Your task to perform on an android device: see creations saved in the google photos Image 0: 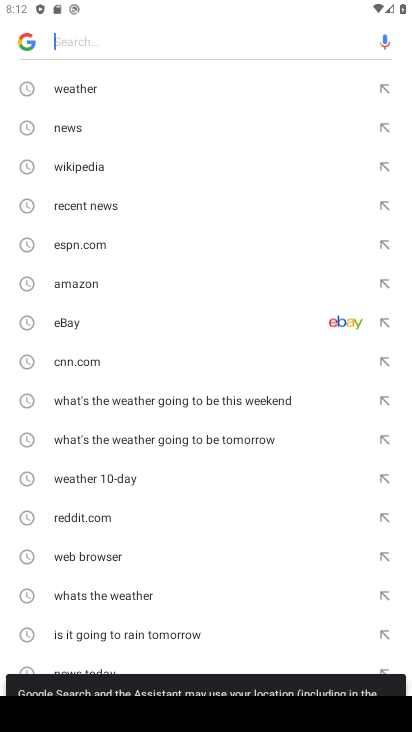
Step 0: drag from (252, 620) to (223, 8)
Your task to perform on an android device: see creations saved in the google photos Image 1: 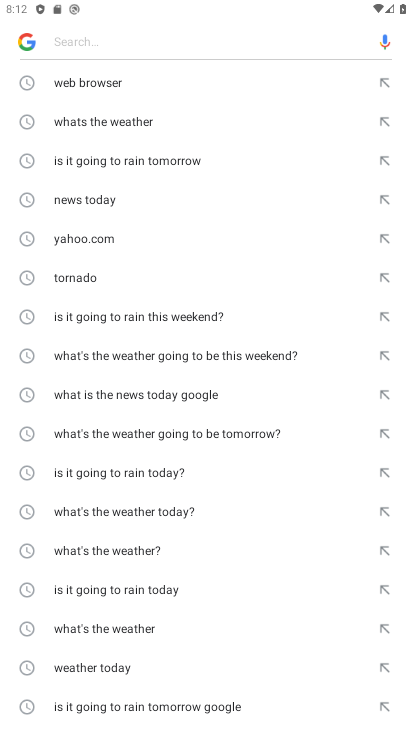
Step 1: drag from (139, 713) to (110, 52)
Your task to perform on an android device: see creations saved in the google photos Image 2: 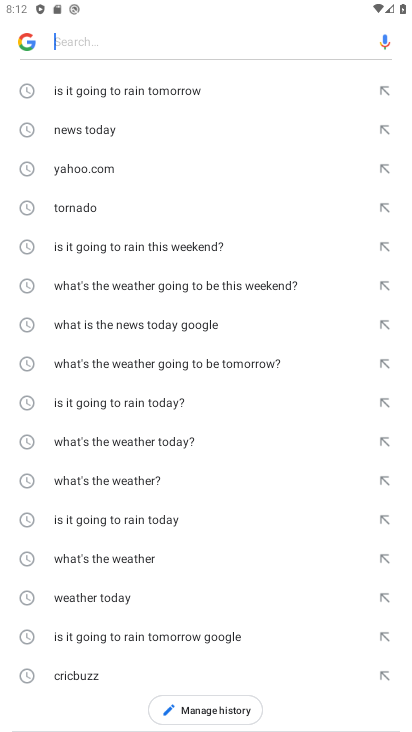
Step 2: drag from (263, 700) to (350, 231)
Your task to perform on an android device: see creations saved in the google photos Image 3: 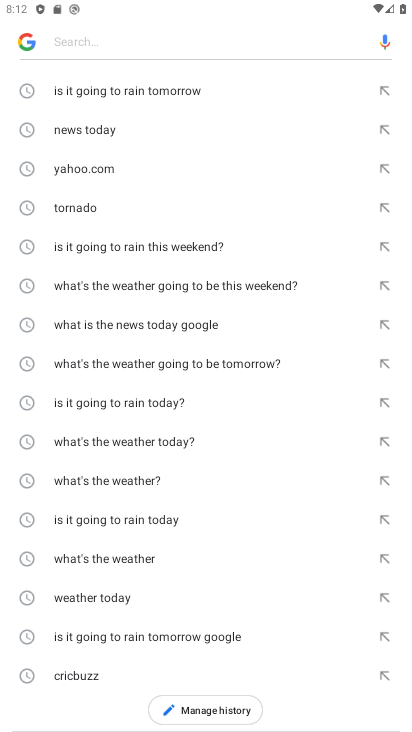
Step 3: drag from (262, 726) to (178, 13)
Your task to perform on an android device: see creations saved in the google photos Image 4: 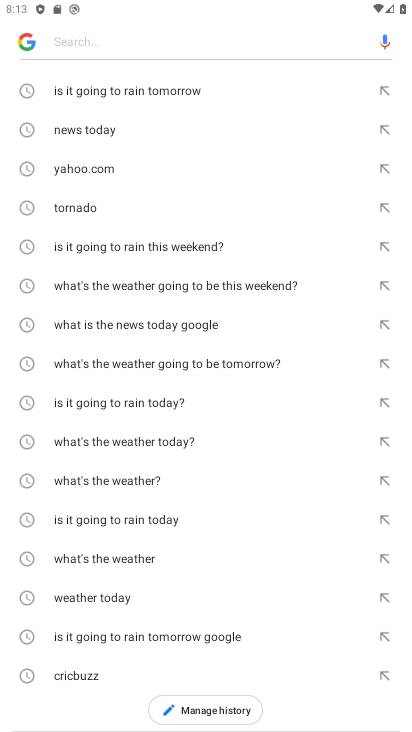
Step 4: click (270, 701)
Your task to perform on an android device: see creations saved in the google photos Image 5: 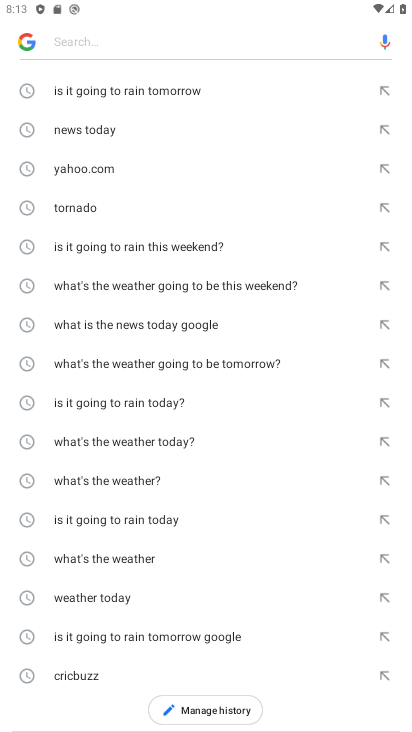
Step 5: click (132, 399)
Your task to perform on an android device: see creations saved in the google photos Image 6: 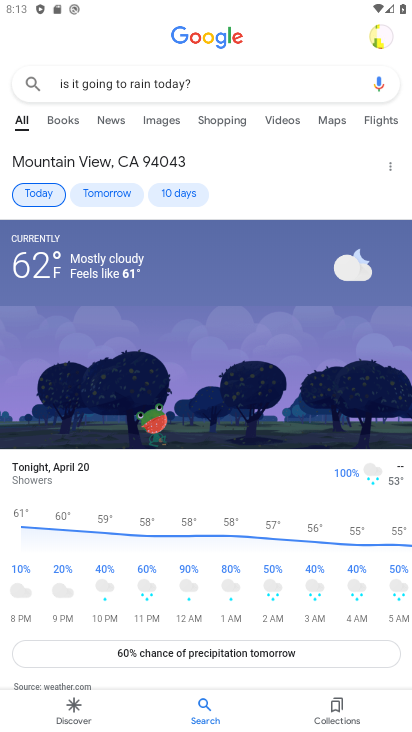
Step 6: press home button
Your task to perform on an android device: see creations saved in the google photos Image 7: 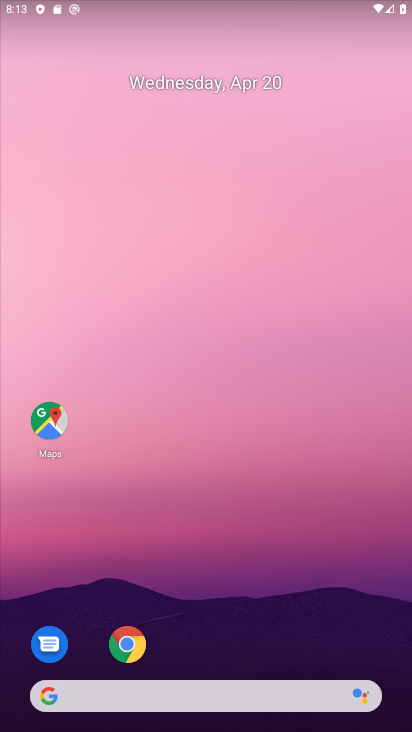
Step 7: drag from (186, 636) to (204, 127)
Your task to perform on an android device: see creations saved in the google photos Image 8: 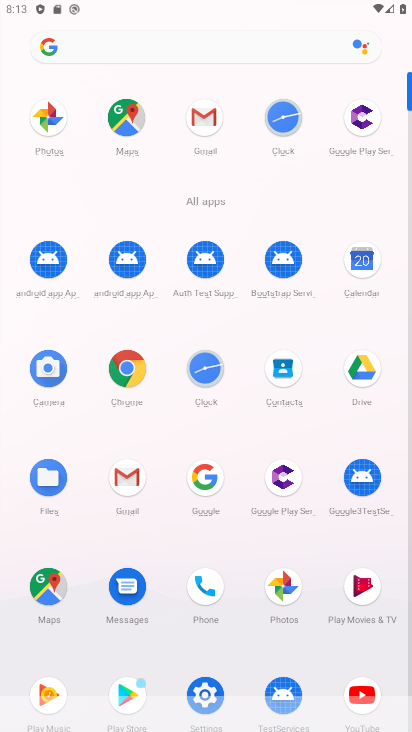
Step 8: click (273, 590)
Your task to perform on an android device: see creations saved in the google photos Image 9: 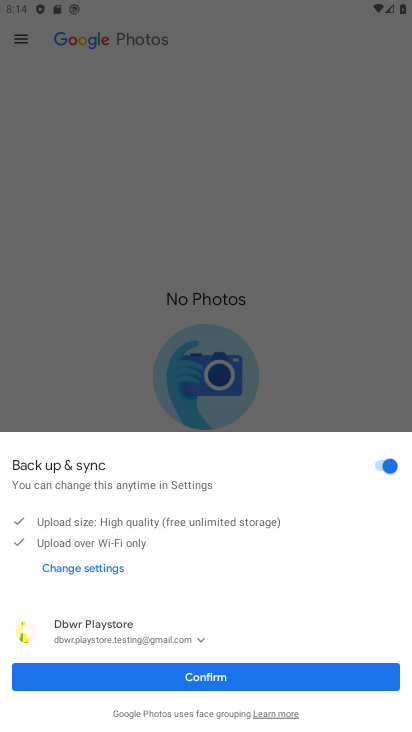
Step 9: task complete